Your task to perform on an android device: create a new album in the google photos Image 0: 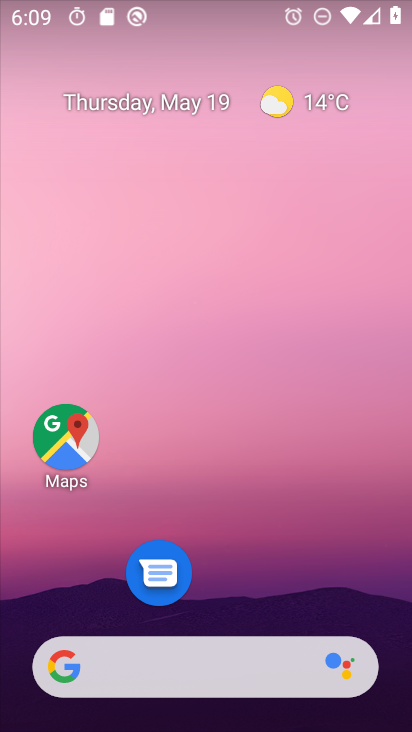
Step 0: drag from (251, 589) to (201, 158)
Your task to perform on an android device: create a new album in the google photos Image 1: 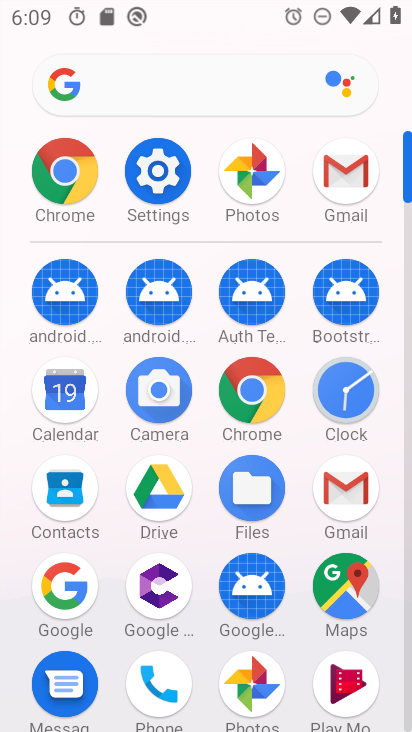
Step 1: click (249, 686)
Your task to perform on an android device: create a new album in the google photos Image 2: 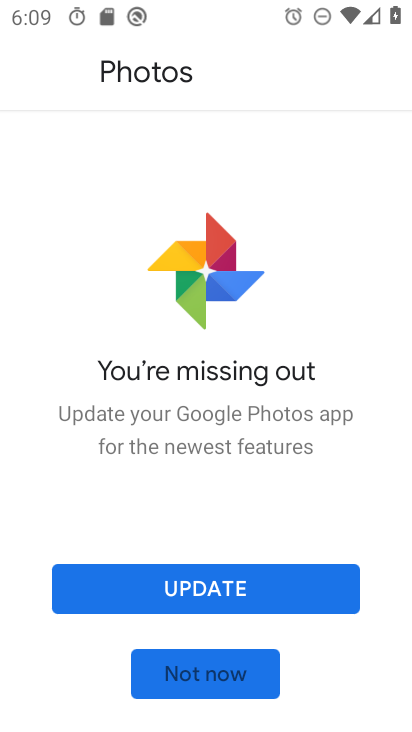
Step 2: click (181, 662)
Your task to perform on an android device: create a new album in the google photos Image 3: 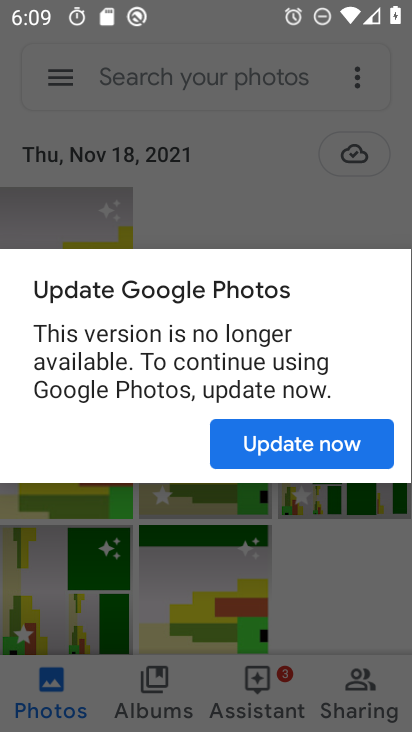
Step 3: click (249, 433)
Your task to perform on an android device: create a new album in the google photos Image 4: 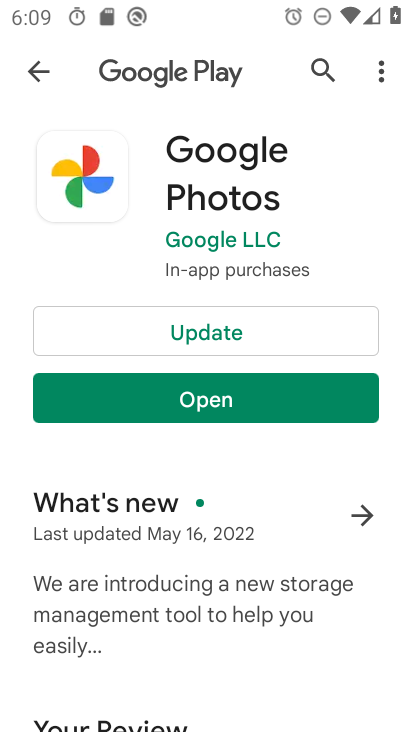
Step 4: click (232, 419)
Your task to perform on an android device: create a new album in the google photos Image 5: 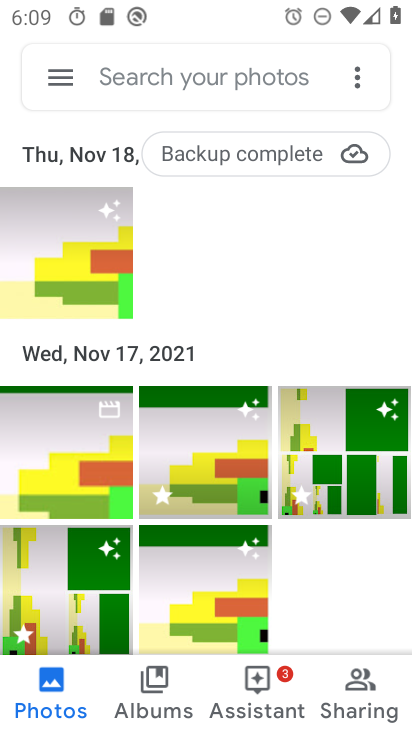
Step 5: click (152, 714)
Your task to perform on an android device: create a new album in the google photos Image 6: 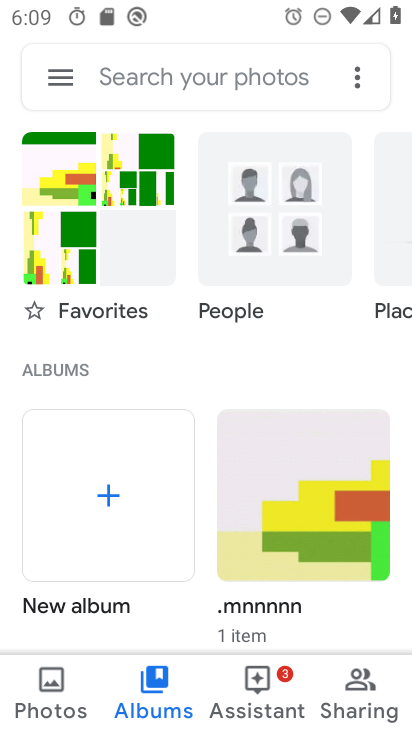
Step 6: click (113, 503)
Your task to perform on an android device: create a new album in the google photos Image 7: 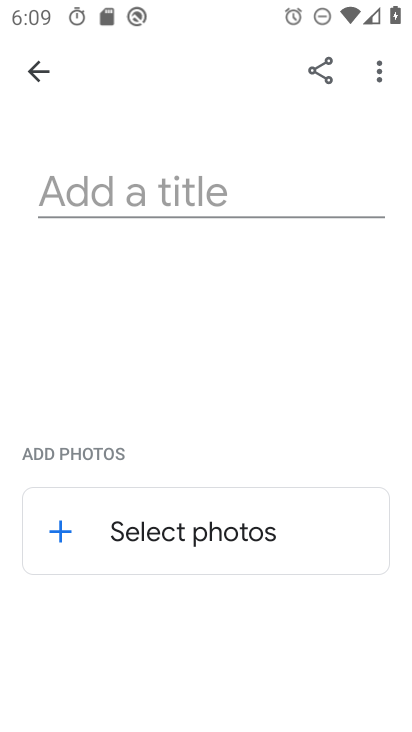
Step 7: click (170, 175)
Your task to perform on an android device: create a new album in the google photos Image 8: 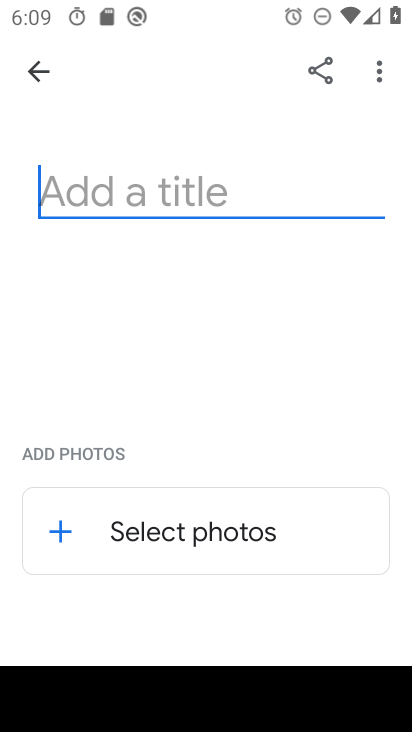
Step 8: type "Summer"
Your task to perform on an android device: create a new album in the google photos Image 9: 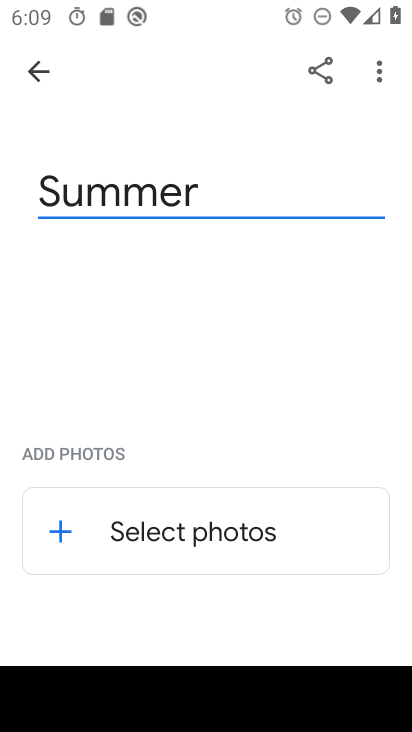
Step 9: click (183, 551)
Your task to perform on an android device: create a new album in the google photos Image 10: 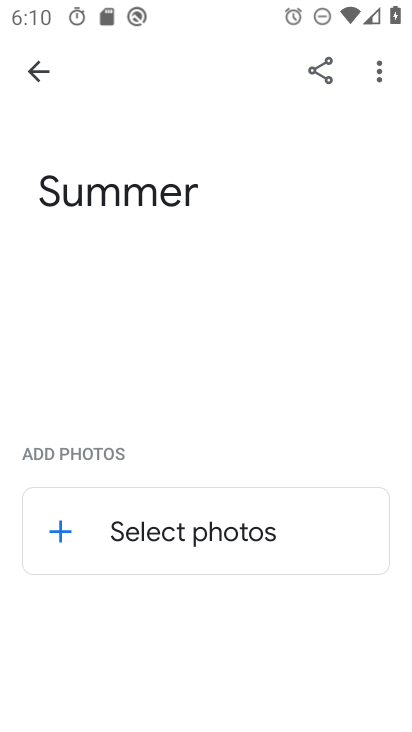
Step 10: click (192, 535)
Your task to perform on an android device: create a new album in the google photos Image 11: 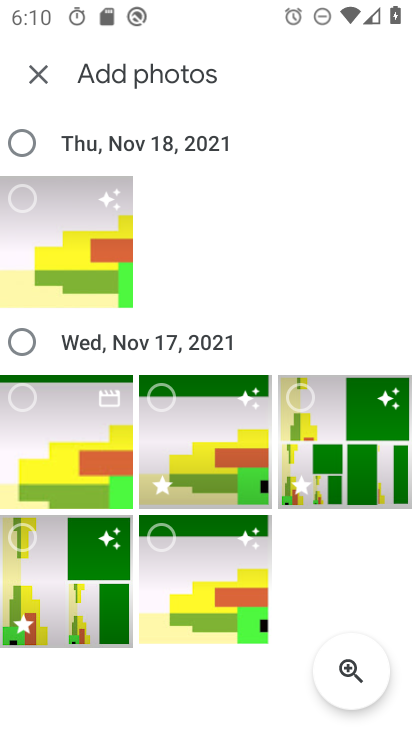
Step 11: click (16, 142)
Your task to perform on an android device: create a new album in the google photos Image 12: 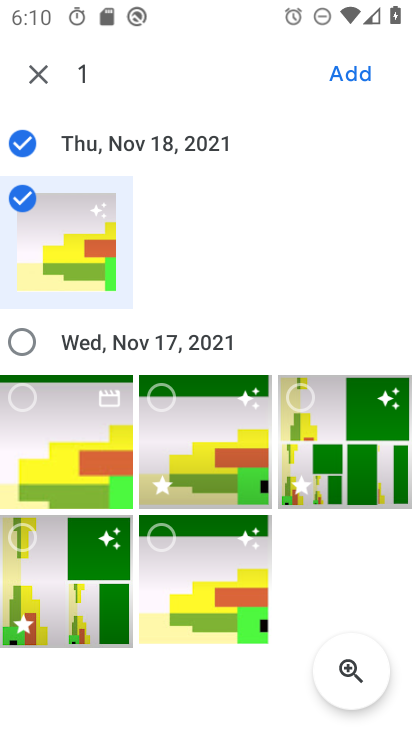
Step 12: click (362, 67)
Your task to perform on an android device: create a new album in the google photos Image 13: 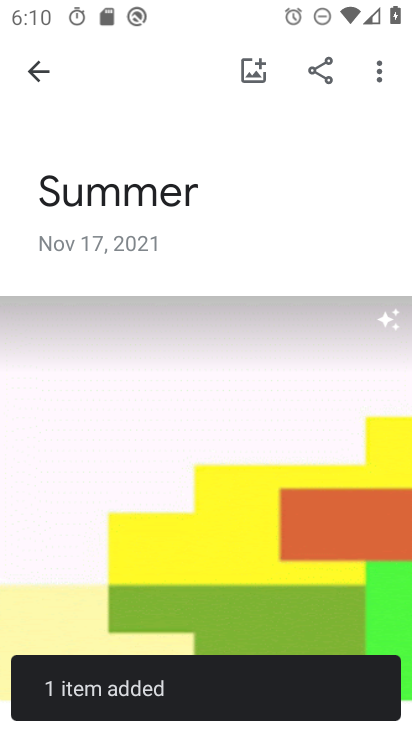
Step 13: task complete